Your task to perform on an android device: toggle sleep mode Image 0: 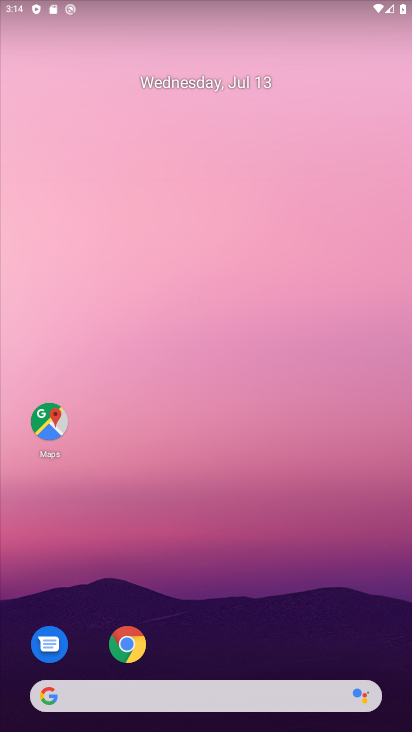
Step 0: drag from (176, 647) to (173, 28)
Your task to perform on an android device: toggle sleep mode Image 1: 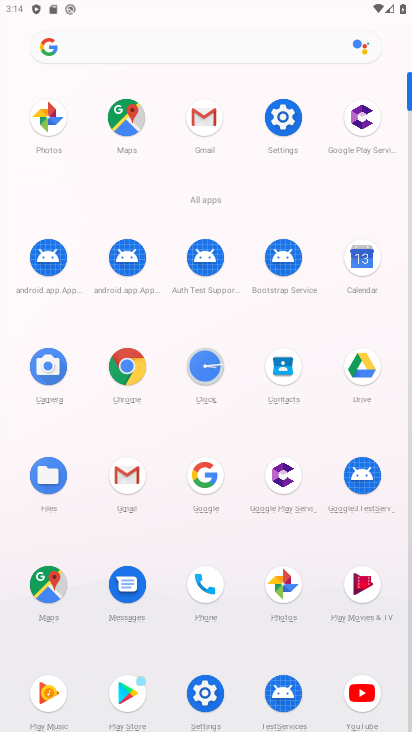
Step 1: click (277, 112)
Your task to perform on an android device: toggle sleep mode Image 2: 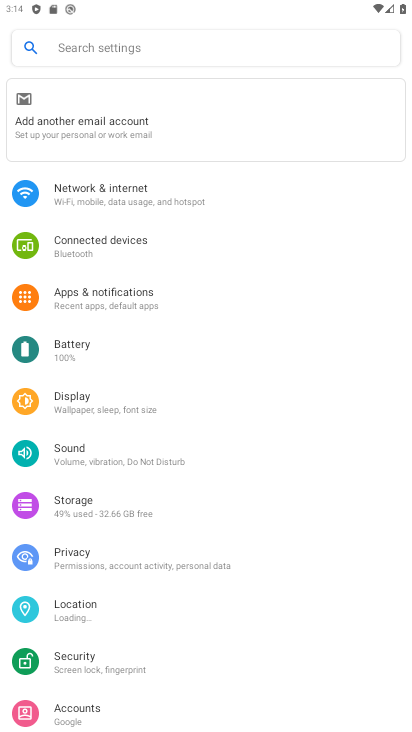
Step 2: drag from (146, 596) to (161, 272)
Your task to perform on an android device: toggle sleep mode Image 3: 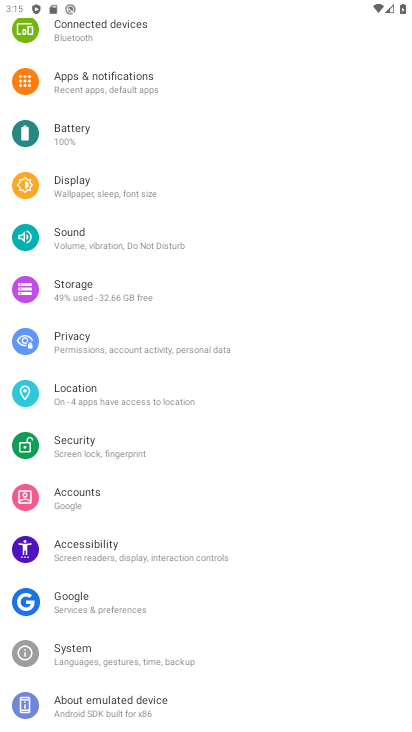
Step 3: click (101, 193)
Your task to perform on an android device: toggle sleep mode Image 4: 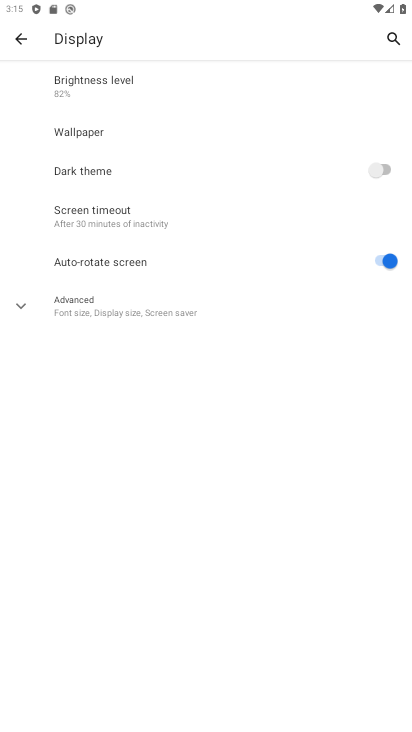
Step 4: click (151, 214)
Your task to perform on an android device: toggle sleep mode Image 5: 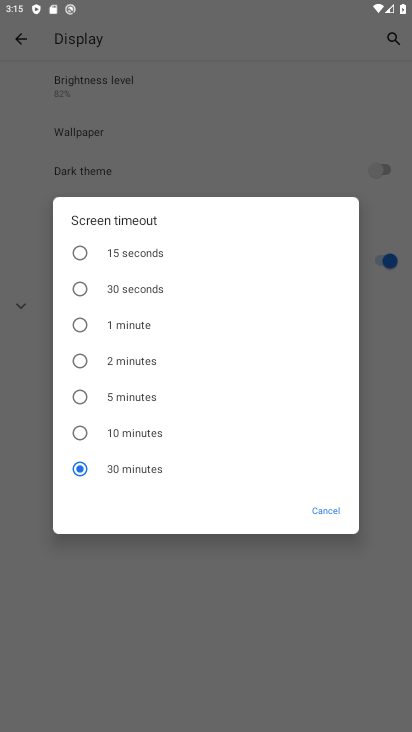
Step 5: click (338, 500)
Your task to perform on an android device: toggle sleep mode Image 6: 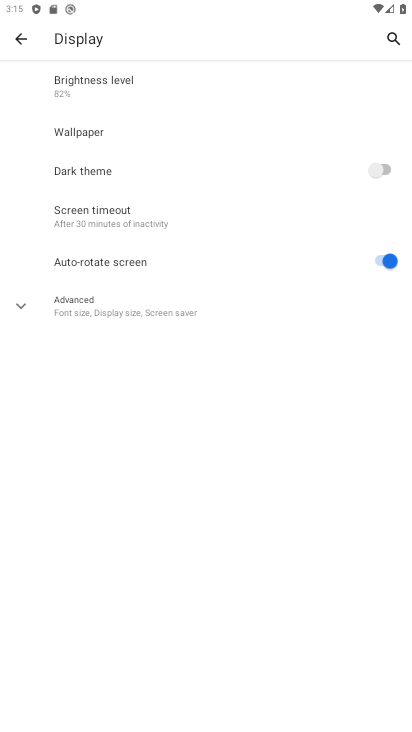
Step 6: click (165, 216)
Your task to perform on an android device: toggle sleep mode Image 7: 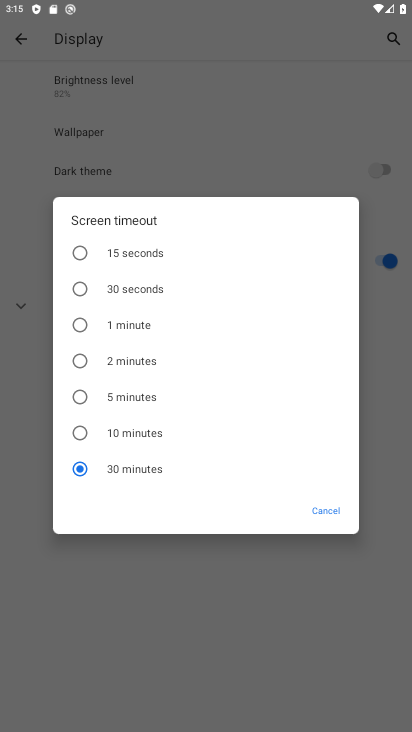
Step 7: task complete